Your task to perform on an android device: find snoozed emails in the gmail app Image 0: 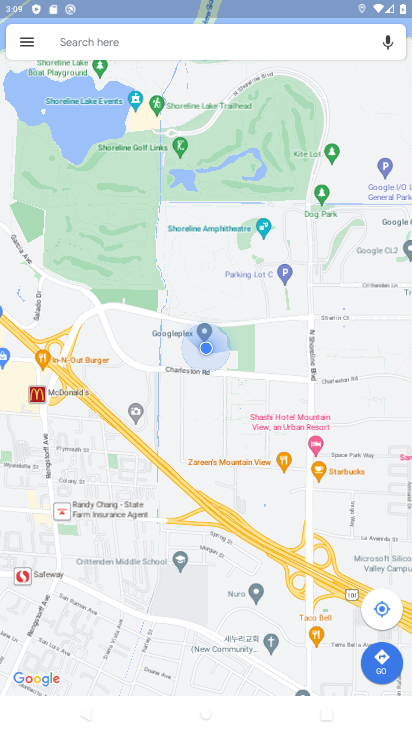
Step 0: press home button
Your task to perform on an android device: find snoozed emails in the gmail app Image 1: 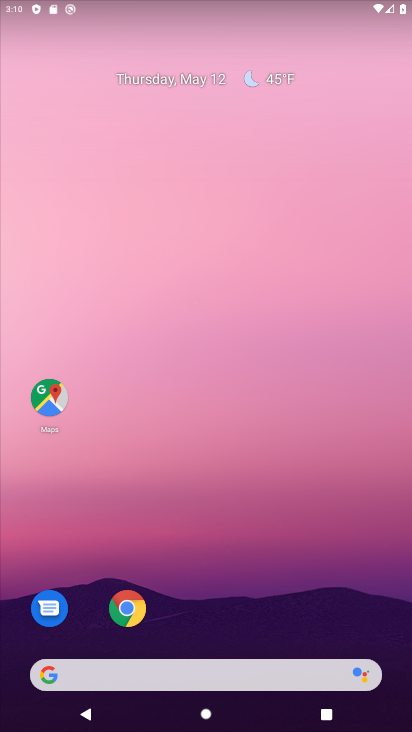
Step 1: drag from (221, 625) to (314, 121)
Your task to perform on an android device: find snoozed emails in the gmail app Image 2: 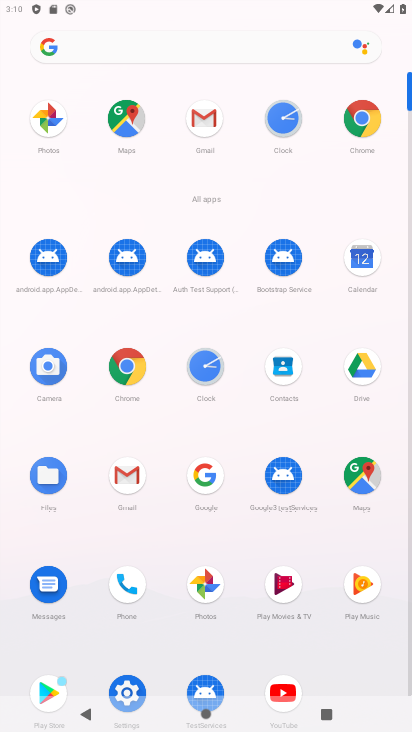
Step 2: click (102, 480)
Your task to perform on an android device: find snoozed emails in the gmail app Image 3: 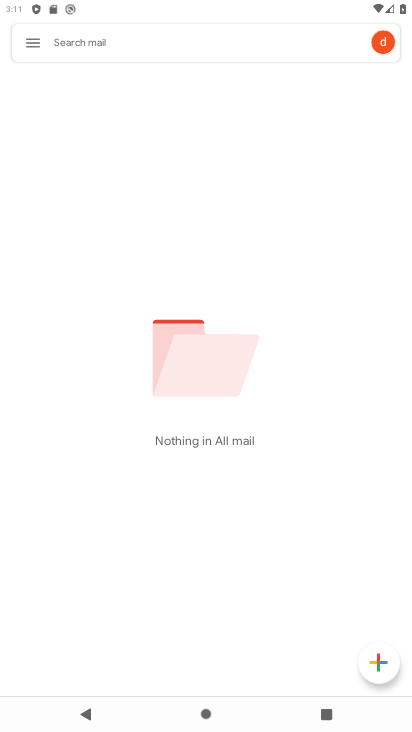
Step 3: task complete